Your task to perform on an android device: Check the news Image 0: 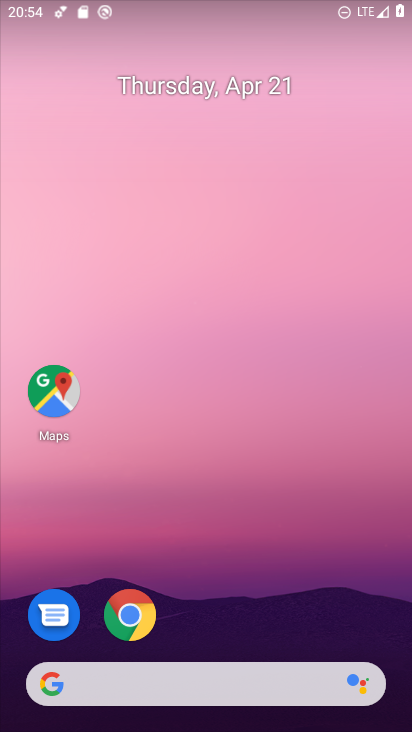
Step 0: drag from (208, 579) to (199, 9)
Your task to perform on an android device: Check the news Image 1: 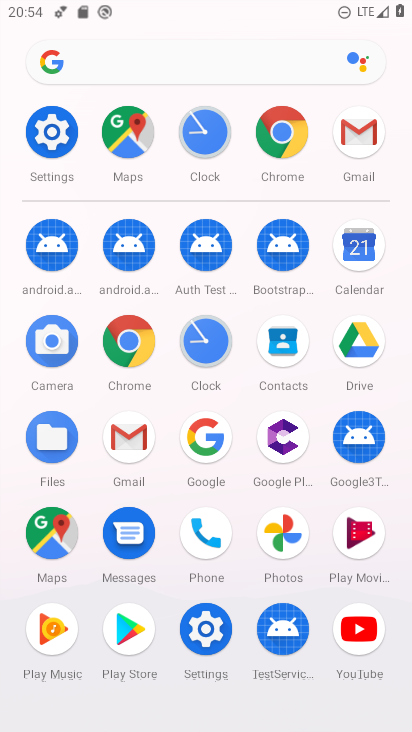
Step 1: click (125, 348)
Your task to perform on an android device: Check the news Image 2: 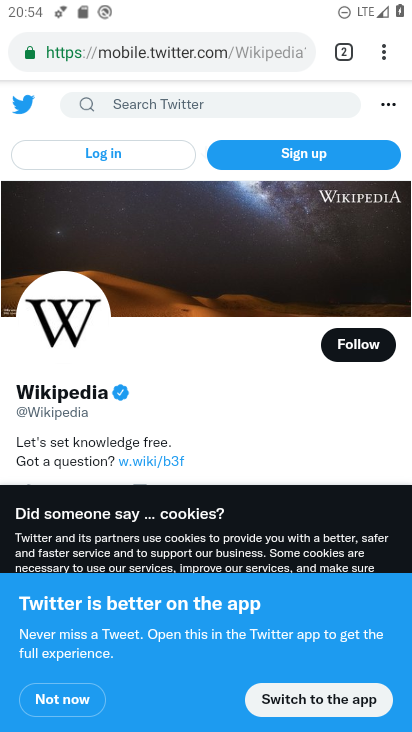
Step 2: click (248, 44)
Your task to perform on an android device: Check the news Image 3: 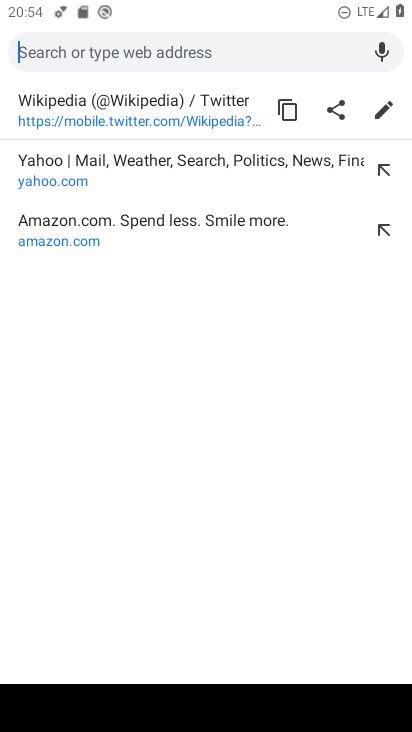
Step 3: type "news"
Your task to perform on an android device: Check the news Image 4: 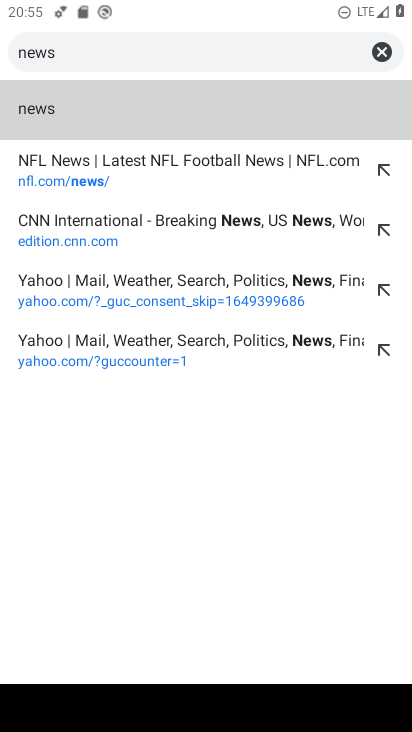
Step 4: click (75, 121)
Your task to perform on an android device: Check the news Image 5: 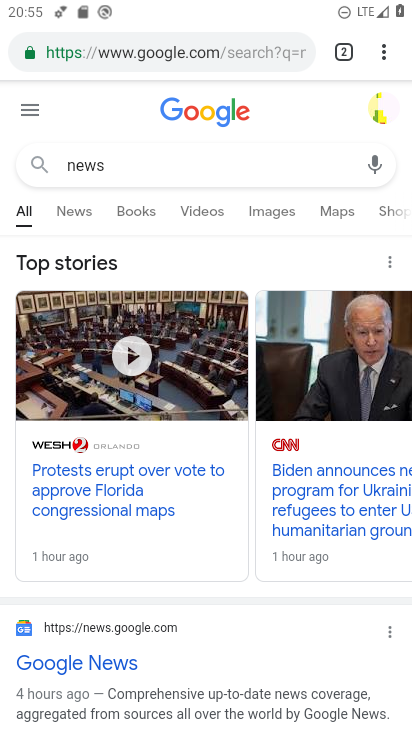
Step 5: drag from (228, 607) to (306, 225)
Your task to perform on an android device: Check the news Image 6: 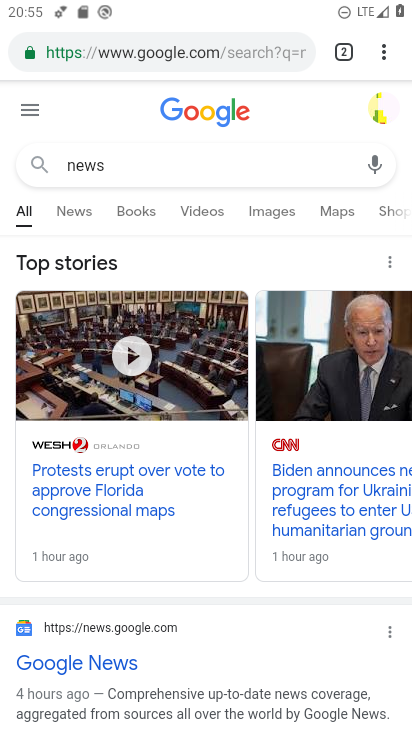
Step 6: drag from (216, 665) to (307, 214)
Your task to perform on an android device: Check the news Image 7: 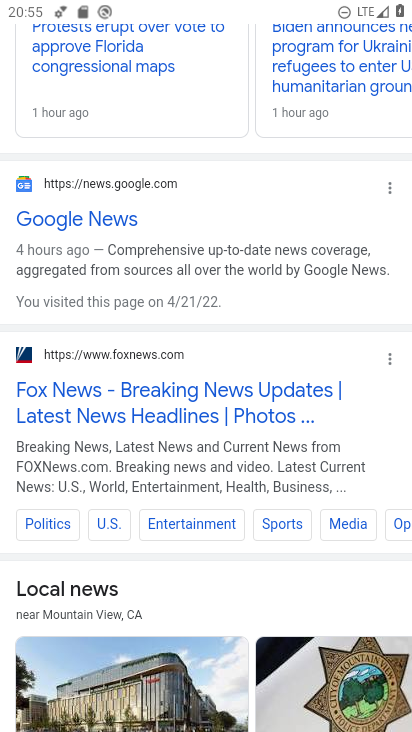
Step 7: click (99, 219)
Your task to perform on an android device: Check the news Image 8: 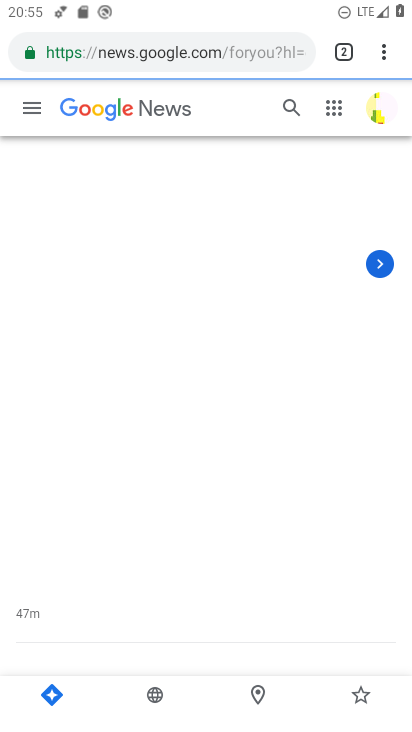
Step 8: task complete